Your task to perform on an android device: all mails in gmail Image 0: 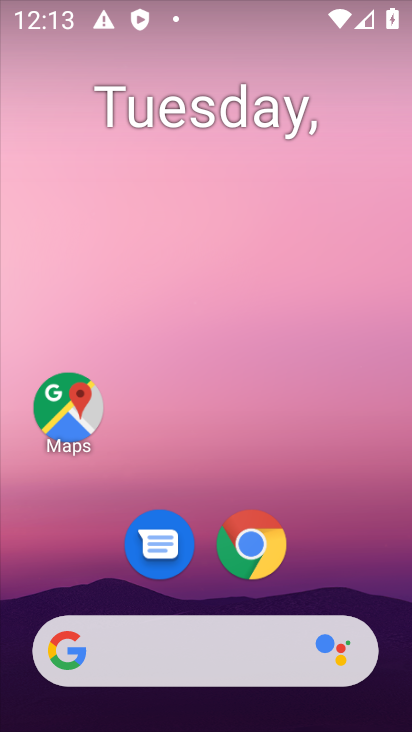
Step 0: drag from (331, 532) to (281, 67)
Your task to perform on an android device: all mails in gmail Image 1: 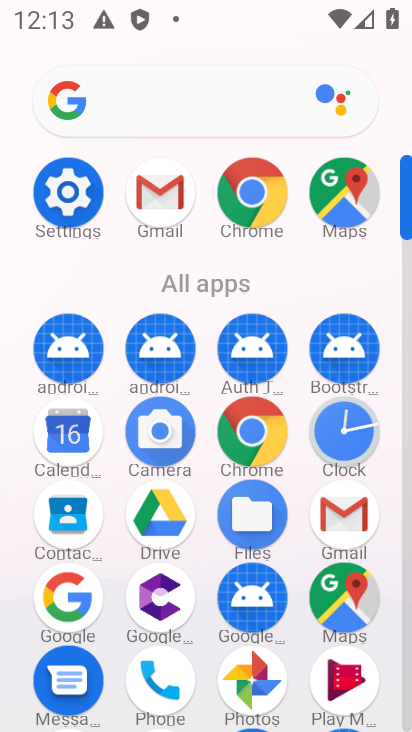
Step 1: click (352, 520)
Your task to perform on an android device: all mails in gmail Image 2: 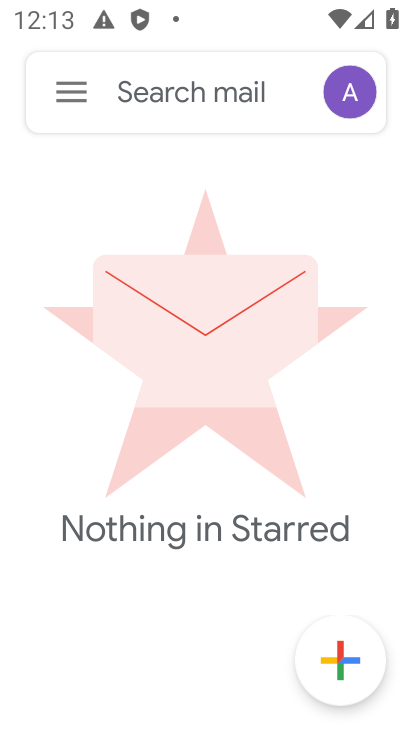
Step 2: click (64, 97)
Your task to perform on an android device: all mails in gmail Image 3: 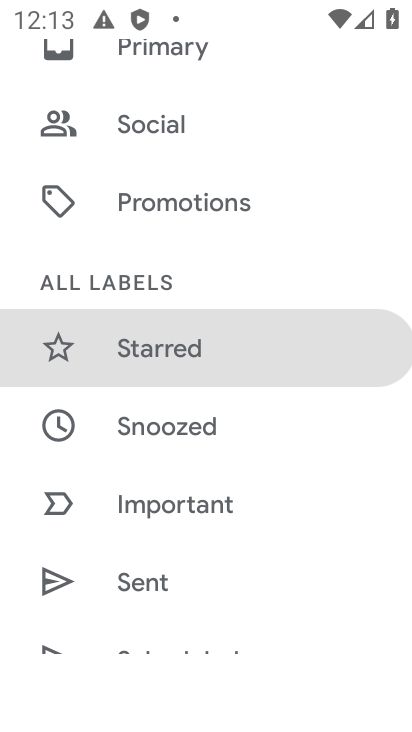
Step 3: drag from (203, 147) to (259, 620)
Your task to perform on an android device: all mails in gmail Image 4: 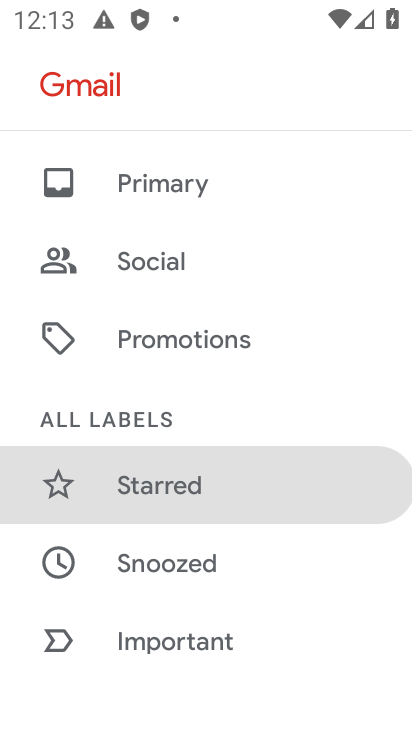
Step 4: drag from (233, 226) to (233, 633)
Your task to perform on an android device: all mails in gmail Image 5: 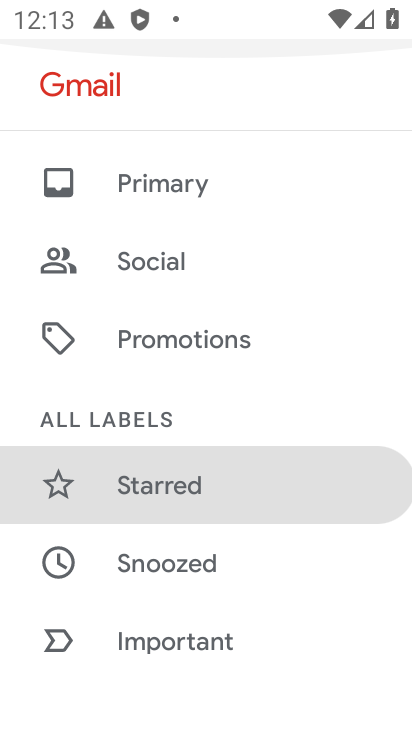
Step 5: drag from (230, 581) to (246, 140)
Your task to perform on an android device: all mails in gmail Image 6: 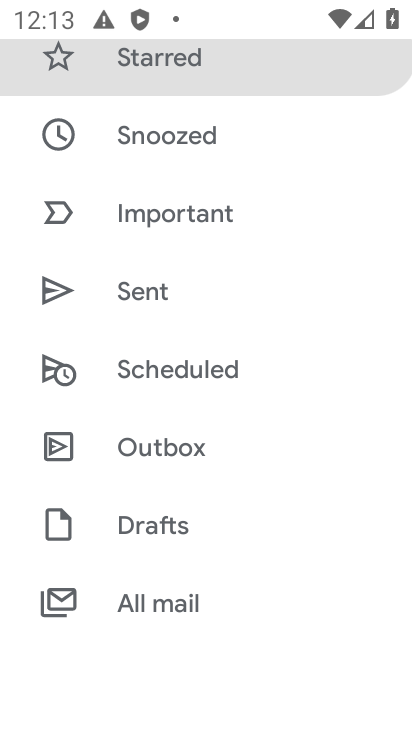
Step 6: click (170, 597)
Your task to perform on an android device: all mails in gmail Image 7: 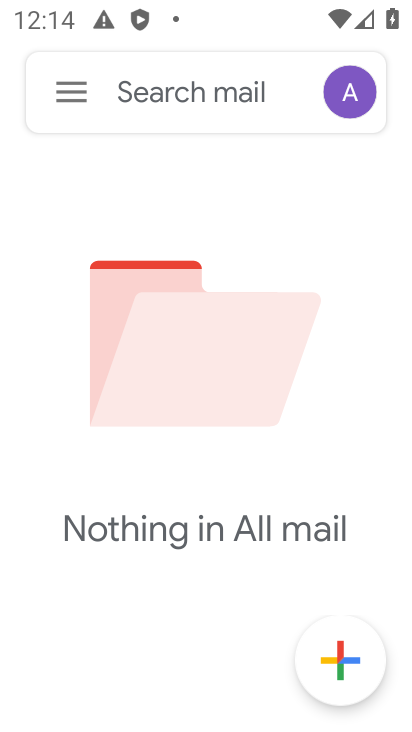
Step 7: task complete